Your task to perform on an android device: Open Google Chrome and click the shortcut for Amazon.com Image 0: 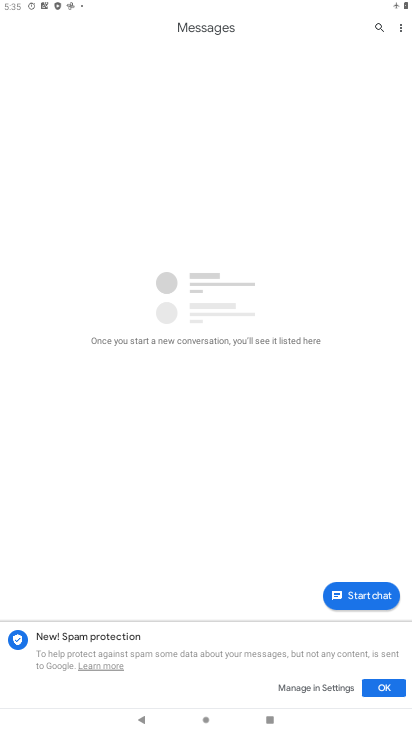
Step 0: press home button
Your task to perform on an android device: Open Google Chrome and click the shortcut for Amazon.com Image 1: 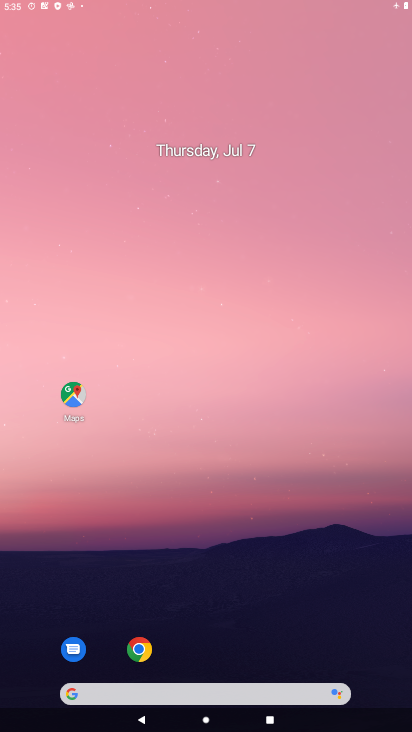
Step 1: drag from (367, 647) to (144, 2)
Your task to perform on an android device: Open Google Chrome and click the shortcut for Amazon.com Image 2: 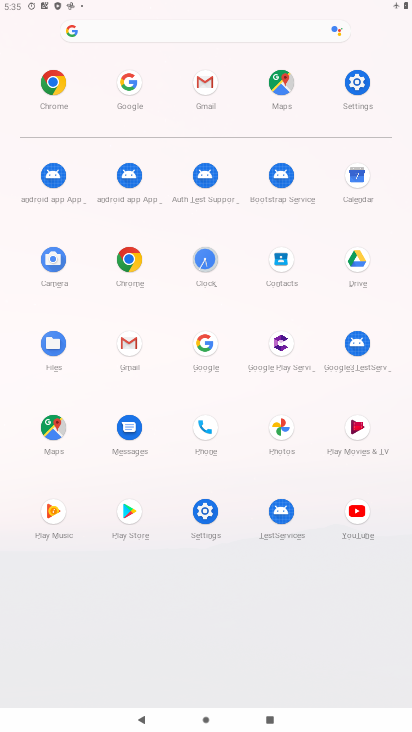
Step 2: click (57, 92)
Your task to perform on an android device: Open Google Chrome and click the shortcut for Amazon.com Image 3: 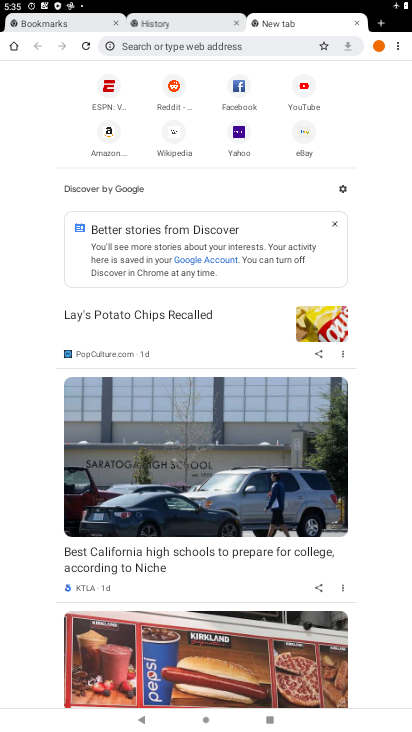
Step 3: click (108, 142)
Your task to perform on an android device: Open Google Chrome and click the shortcut for Amazon.com Image 4: 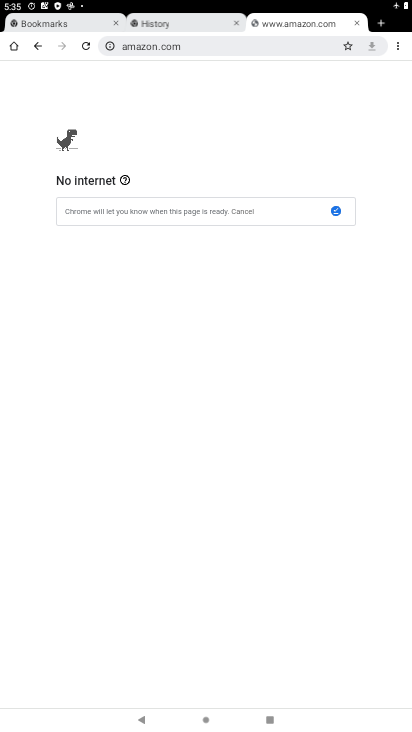
Step 4: task complete